Your task to perform on an android device: turn on improve location accuracy Image 0: 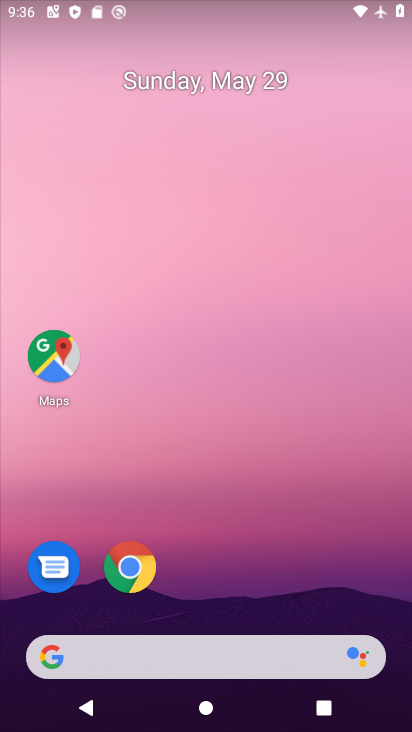
Step 0: drag from (369, 607) to (311, 62)
Your task to perform on an android device: turn on improve location accuracy Image 1: 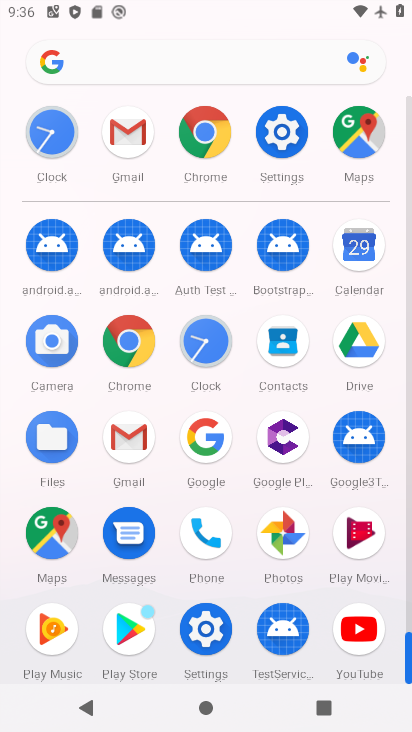
Step 1: click (406, 615)
Your task to perform on an android device: turn on improve location accuracy Image 2: 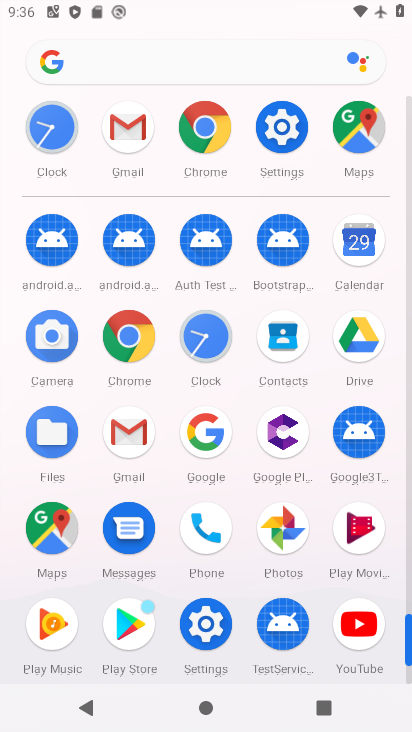
Step 2: click (208, 623)
Your task to perform on an android device: turn on improve location accuracy Image 3: 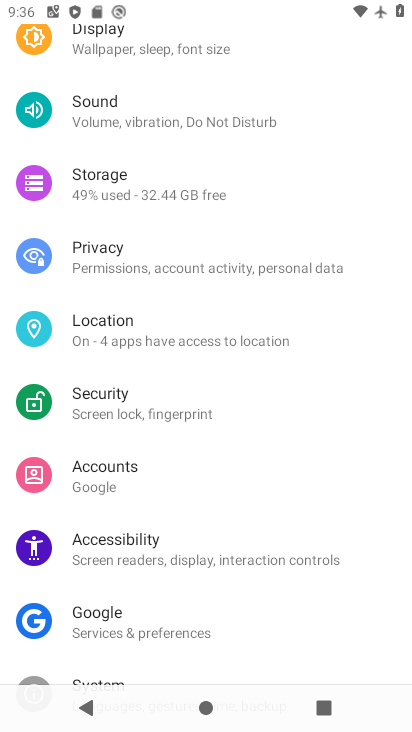
Step 3: click (136, 339)
Your task to perform on an android device: turn on improve location accuracy Image 4: 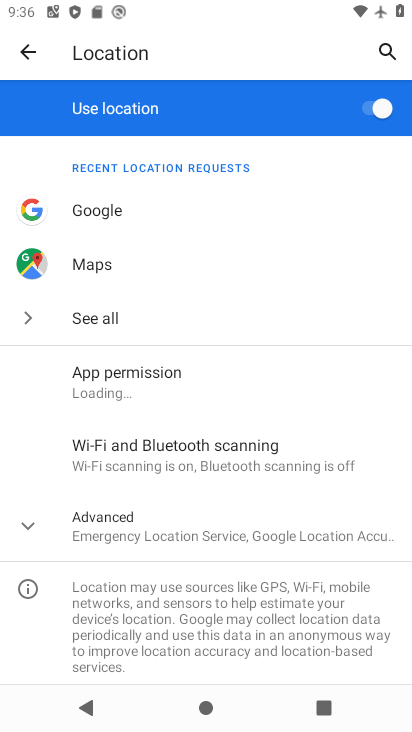
Step 4: click (31, 525)
Your task to perform on an android device: turn on improve location accuracy Image 5: 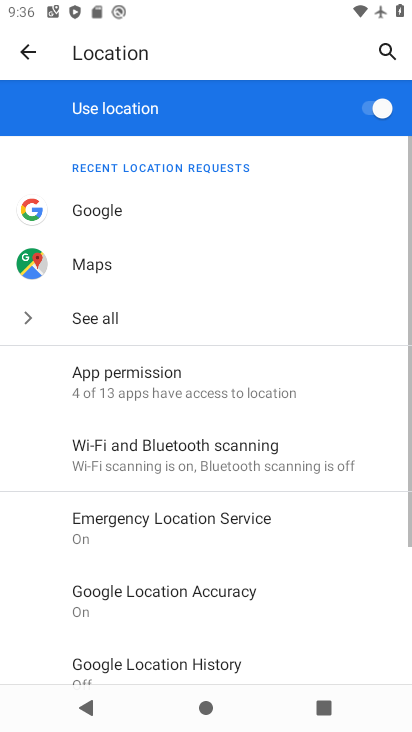
Step 5: drag from (250, 581) to (261, 283)
Your task to perform on an android device: turn on improve location accuracy Image 6: 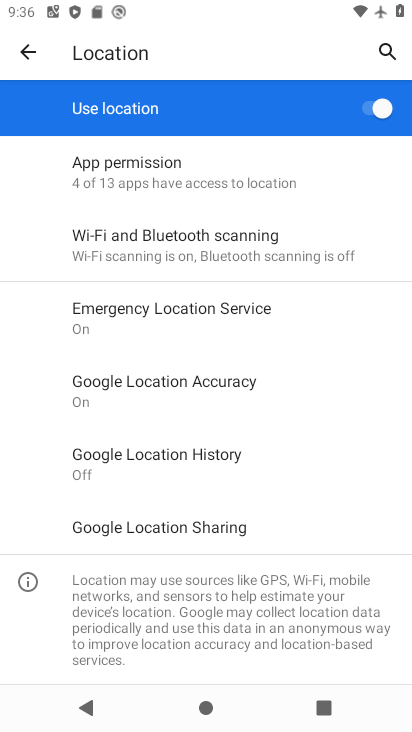
Step 6: click (168, 372)
Your task to perform on an android device: turn on improve location accuracy Image 7: 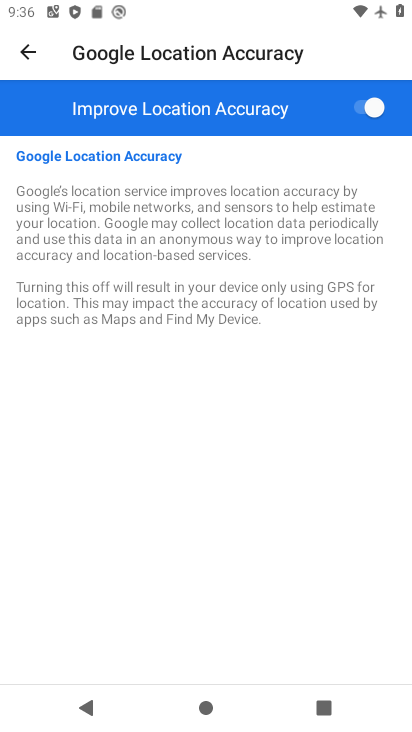
Step 7: task complete